Your task to perform on an android device: toggle translation in the chrome app Image 0: 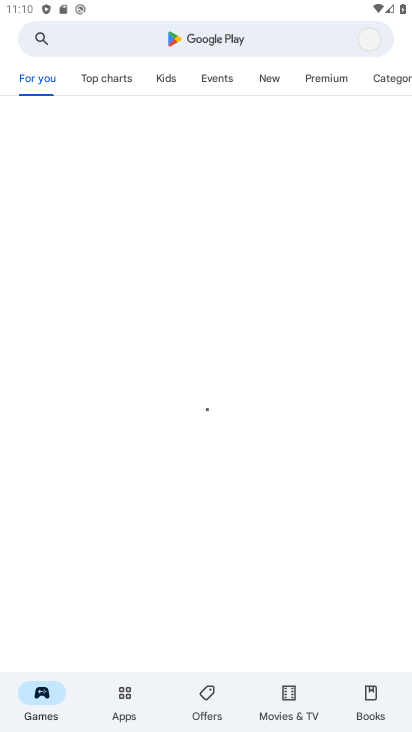
Step 0: press home button
Your task to perform on an android device: toggle translation in the chrome app Image 1: 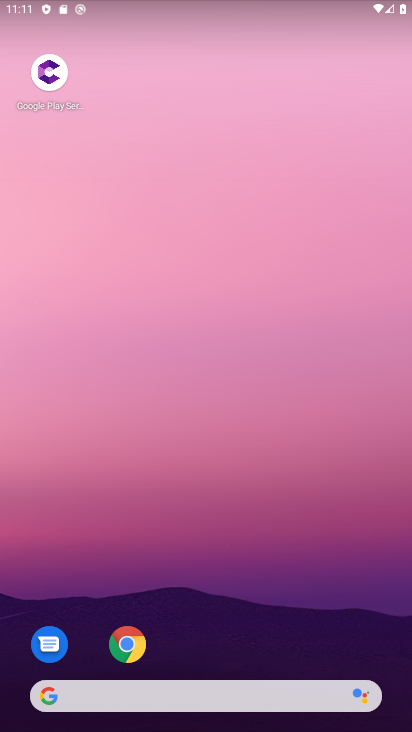
Step 1: click (126, 643)
Your task to perform on an android device: toggle translation in the chrome app Image 2: 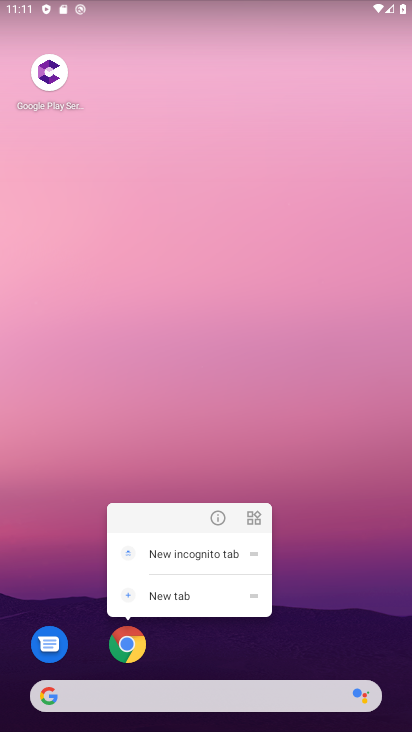
Step 2: click (126, 644)
Your task to perform on an android device: toggle translation in the chrome app Image 3: 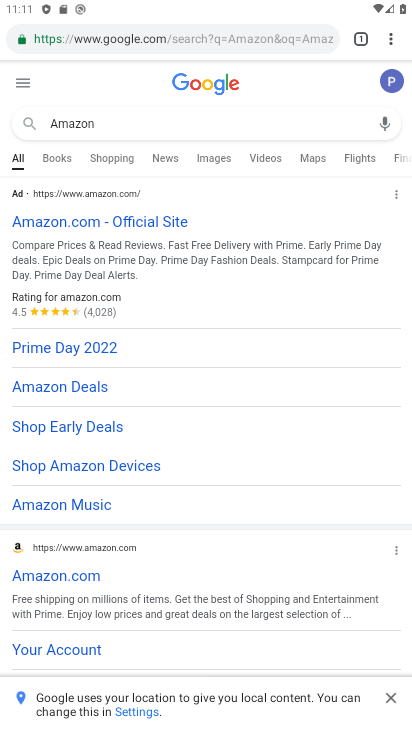
Step 3: click (386, 42)
Your task to perform on an android device: toggle translation in the chrome app Image 4: 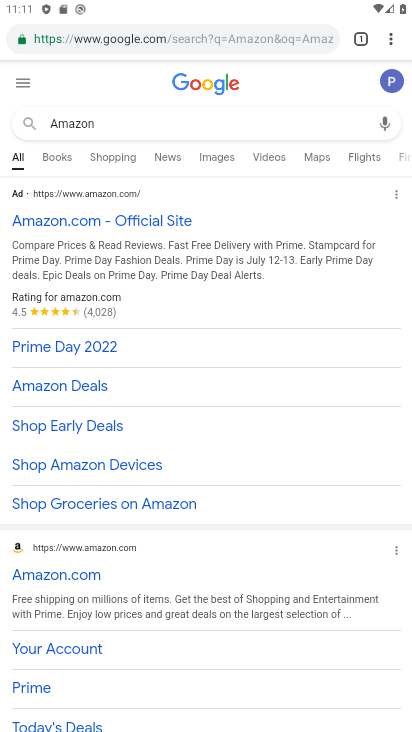
Step 4: click (388, 33)
Your task to perform on an android device: toggle translation in the chrome app Image 5: 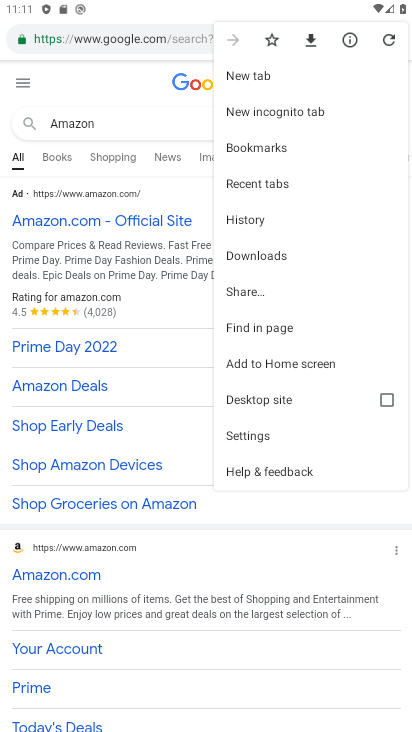
Step 5: click (250, 435)
Your task to perform on an android device: toggle translation in the chrome app Image 6: 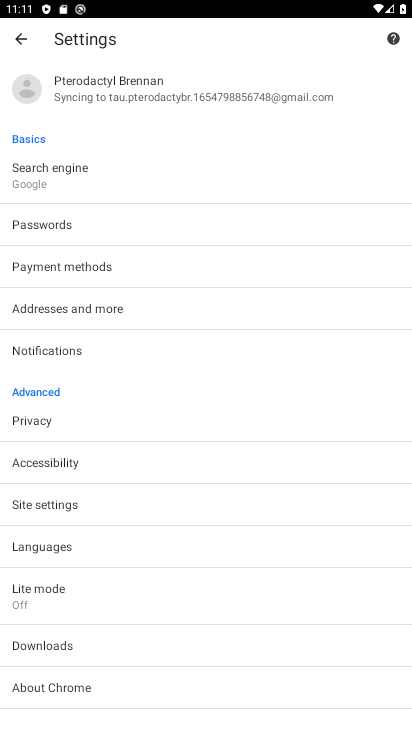
Step 6: click (69, 523)
Your task to perform on an android device: toggle translation in the chrome app Image 7: 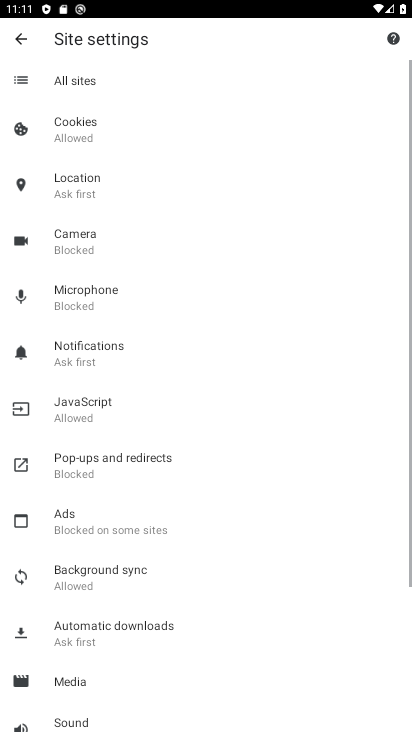
Step 7: click (65, 546)
Your task to perform on an android device: toggle translation in the chrome app Image 8: 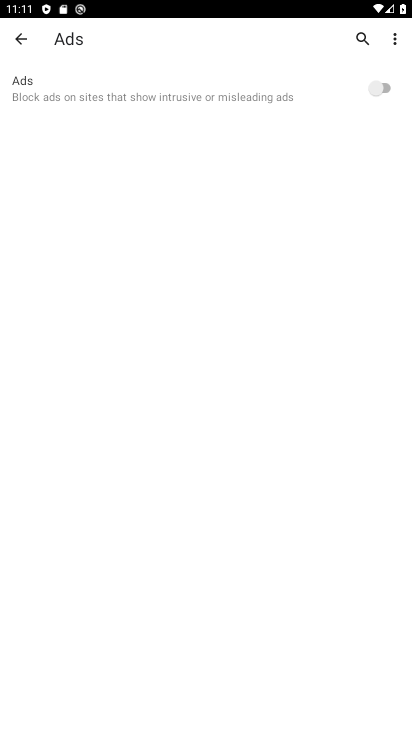
Step 8: click (29, 43)
Your task to perform on an android device: toggle translation in the chrome app Image 9: 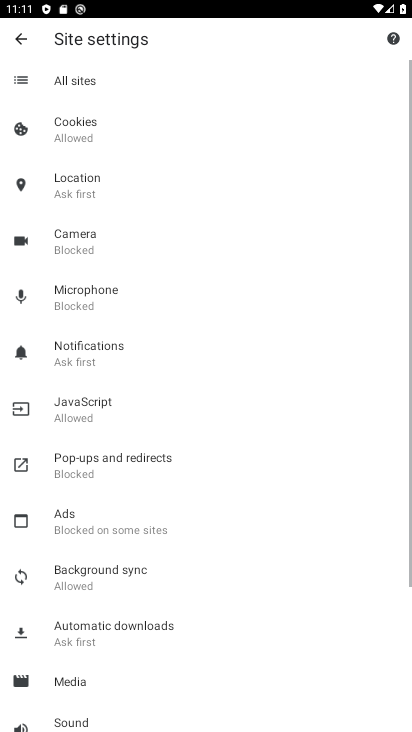
Step 9: click (29, 43)
Your task to perform on an android device: toggle translation in the chrome app Image 10: 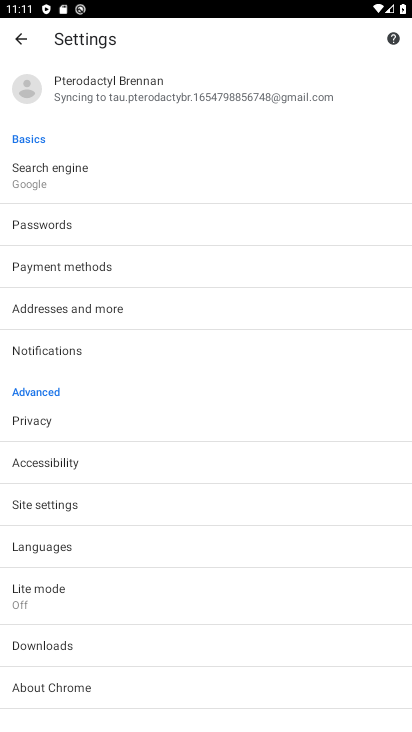
Step 10: click (6, 41)
Your task to perform on an android device: toggle translation in the chrome app Image 11: 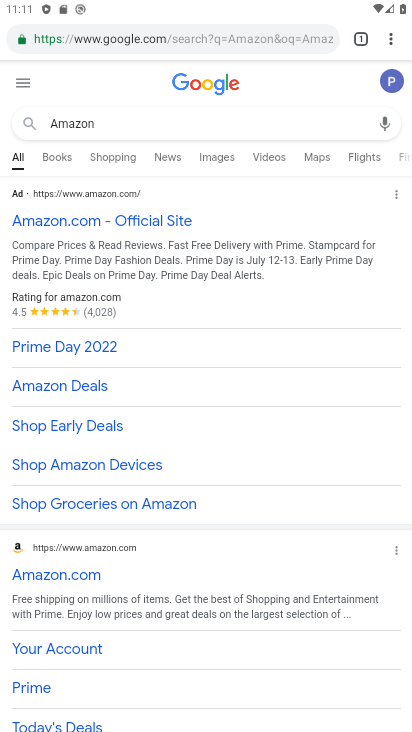
Step 11: click (390, 35)
Your task to perform on an android device: toggle translation in the chrome app Image 12: 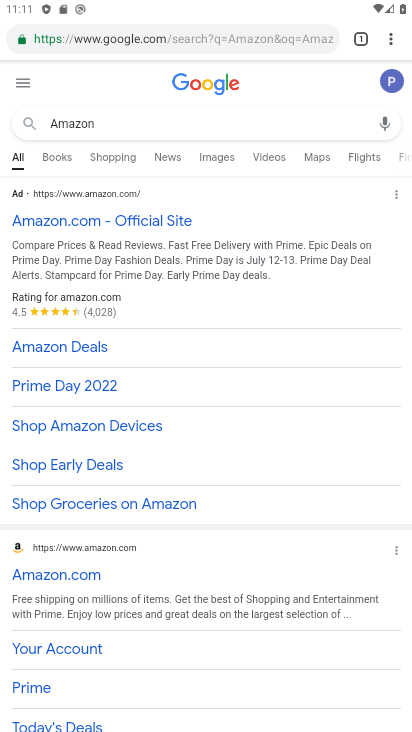
Step 12: click (390, 35)
Your task to perform on an android device: toggle translation in the chrome app Image 13: 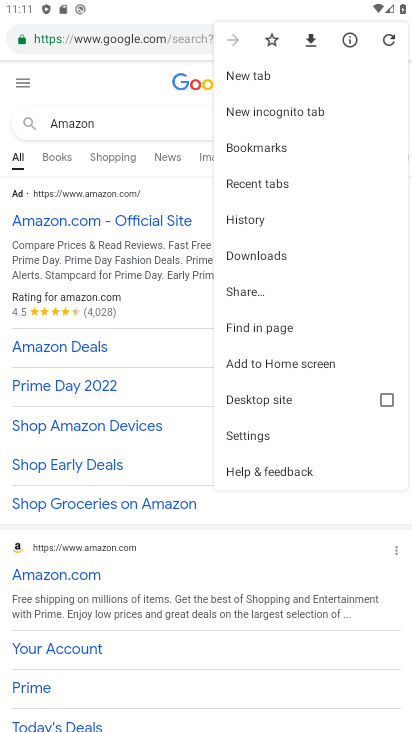
Step 13: click (250, 432)
Your task to perform on an android device: toggle translation in the chrome app Image 14: 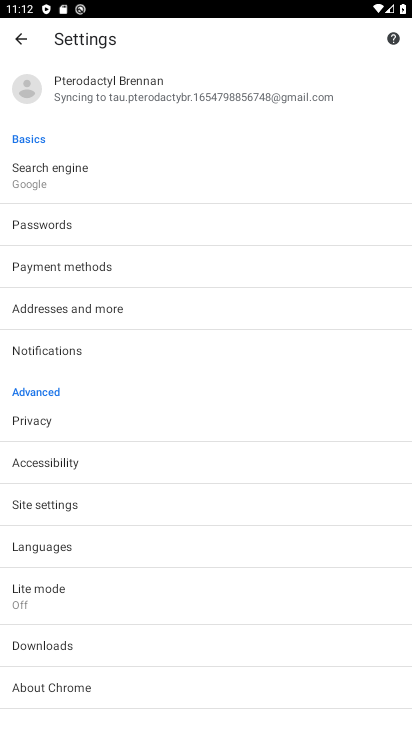
Step 14: click (37, 550)
Your task to perform on an android device: toggle translation in the chrome app Image 15: 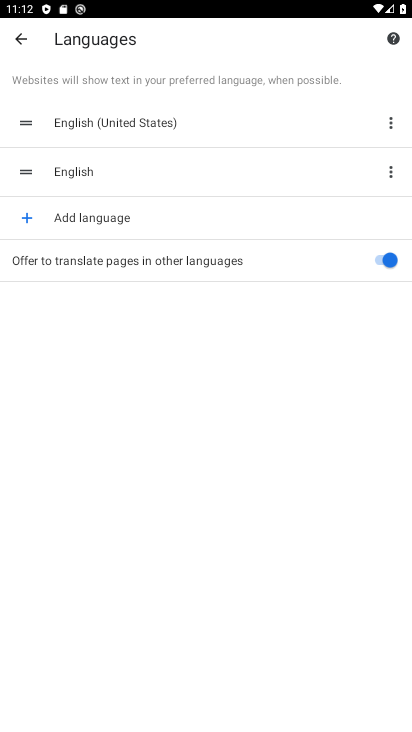
Step 15: click (388, 258)
Your task to perform on an android device: toggle translation in the chrome app Image 16: 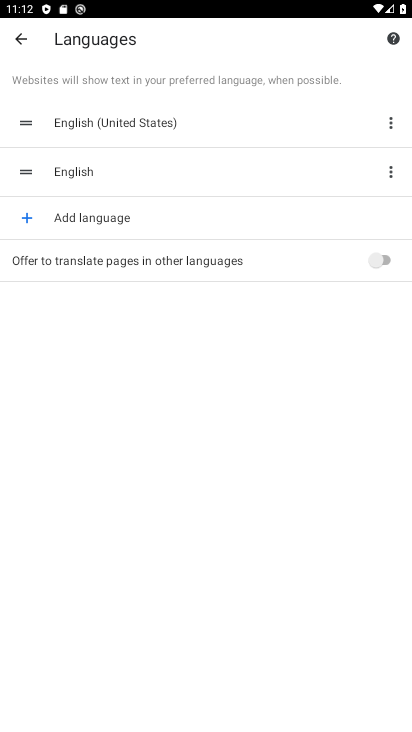
Step 16: task complete